Your task to perform on an android device: Go to settings Image 0: 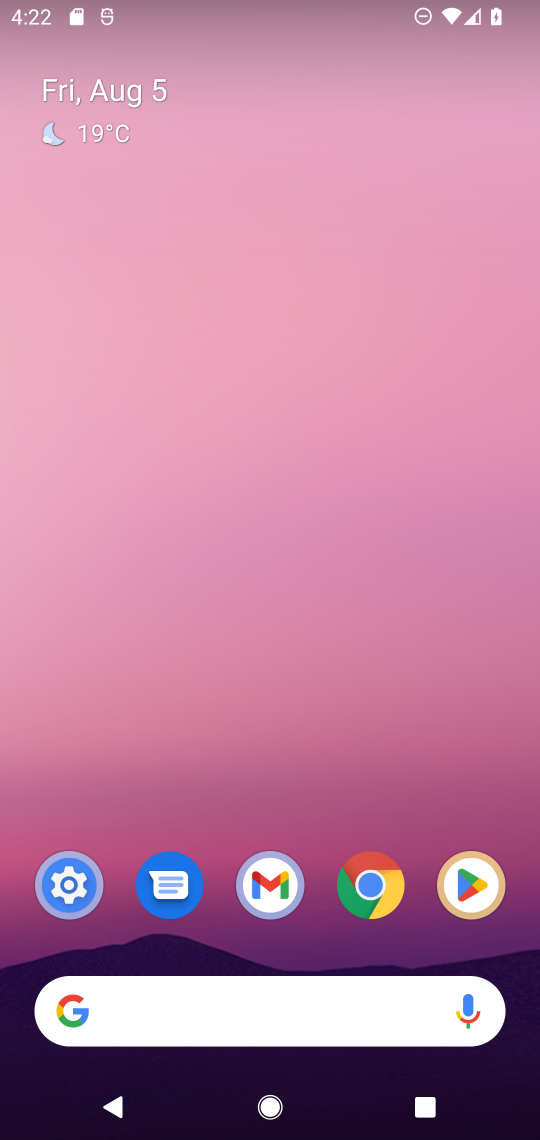
Step 0: drag from (288, 949) to (250, 70)
Your task to perform on an android device: Go to settings Image 1: 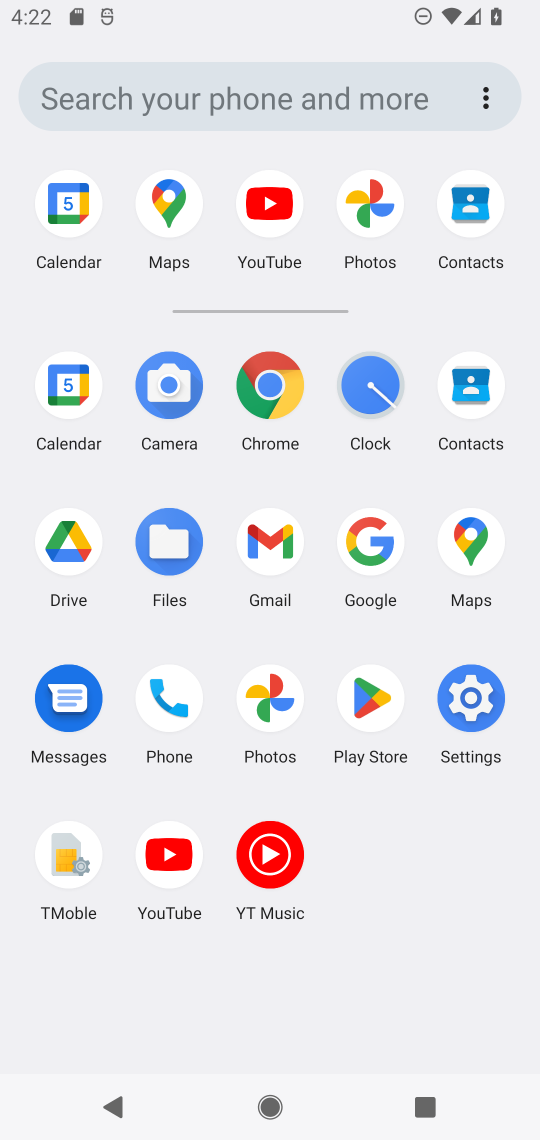
Step 1: click (459, 693)
Your task to perform on an android device: Go to settings Image 2: 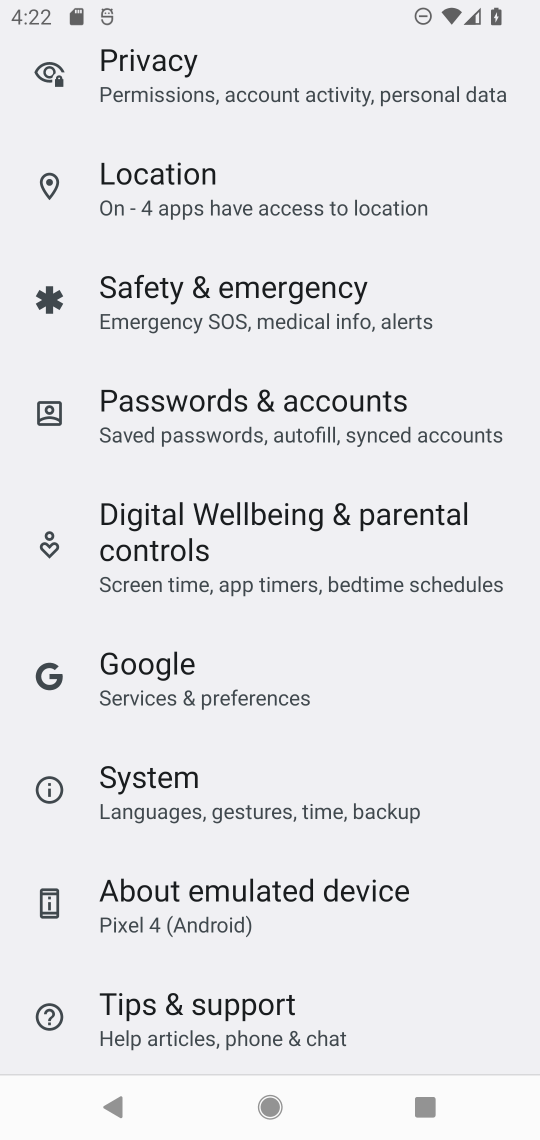
Step 2: task complete